Your task to perform on an android device: open app "Adobe Acrobat Reader" (install if not already installed), go to login, and select forgot password Image 0: 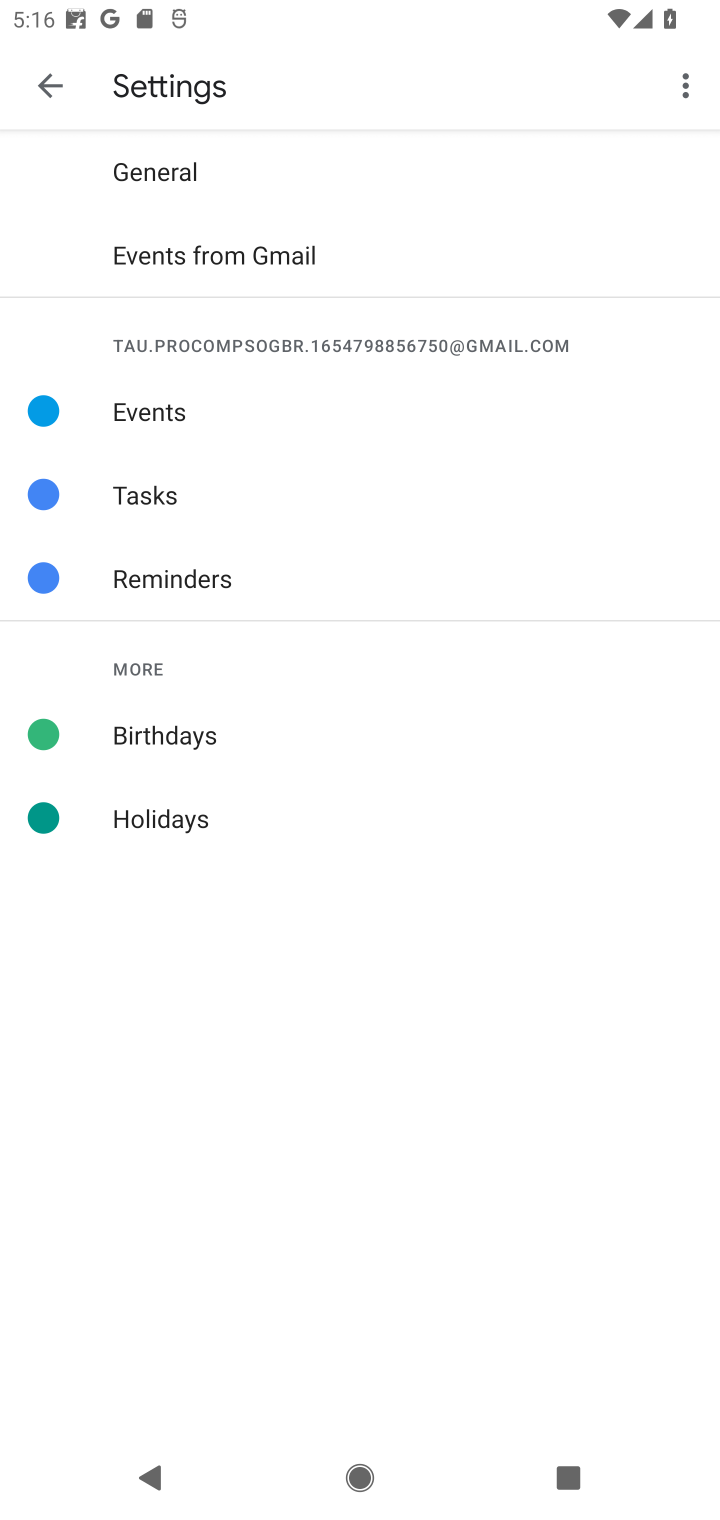
Step 0: press home button
Your task to perform on an android device: open app "Adobe Acrobat Reader" (install if not already installed), go to login, and select forgot password Image 1: 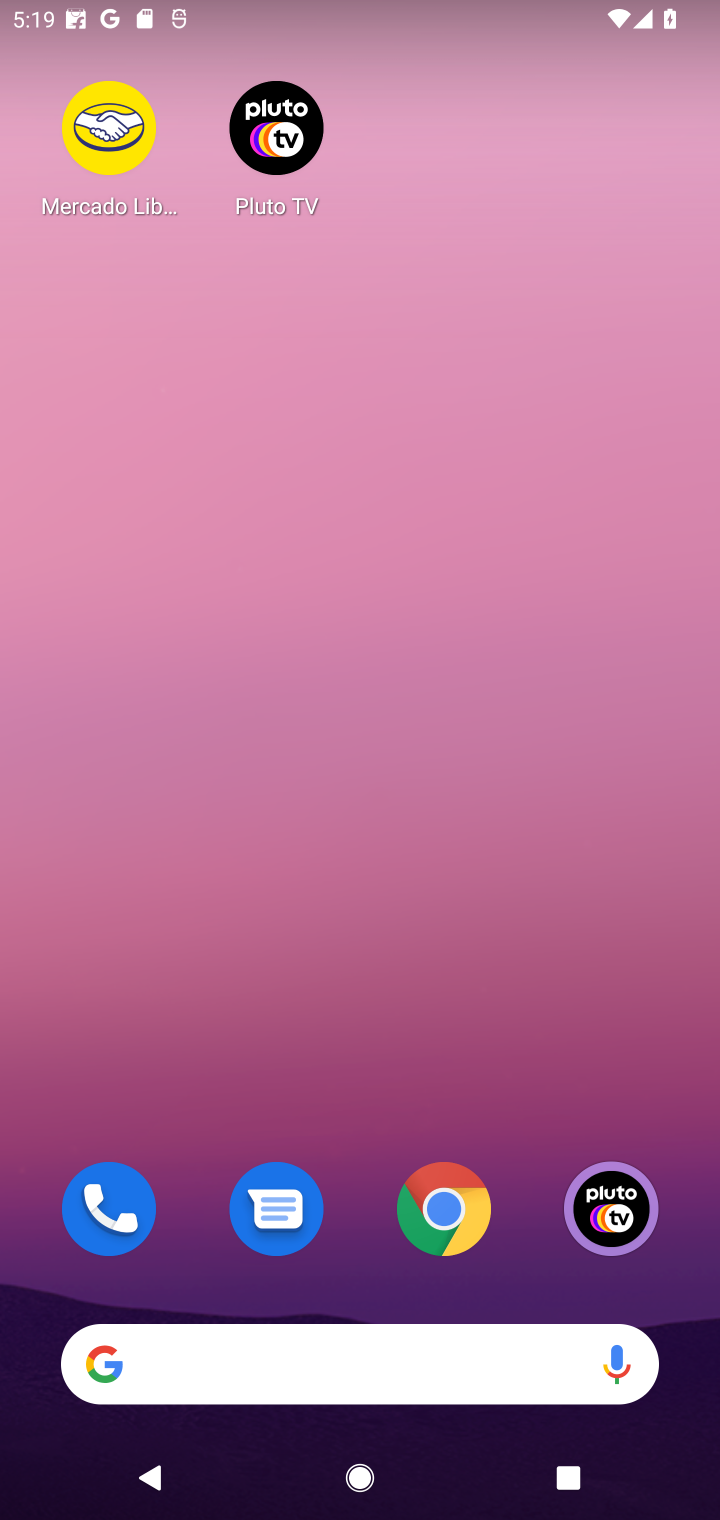
Step 1: task complete